Your task to perform on an android device: star an email in the gmail app Image 0: 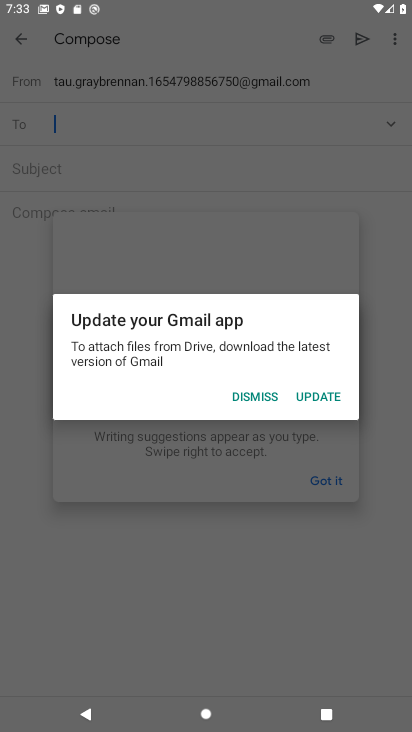
Step 0: press home button
Your task to perform on an android device: star an email in the gmail app Image 1: 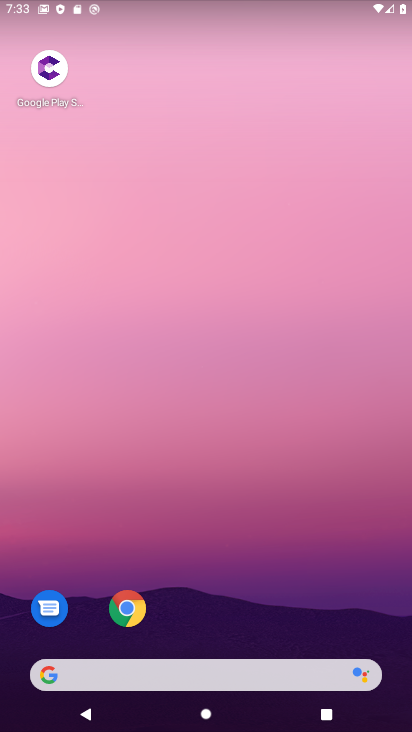
Step 1: drag from (305, 600) to (206, 2)
Your task to perform on an android device: star an email in the gmail app Image 2: 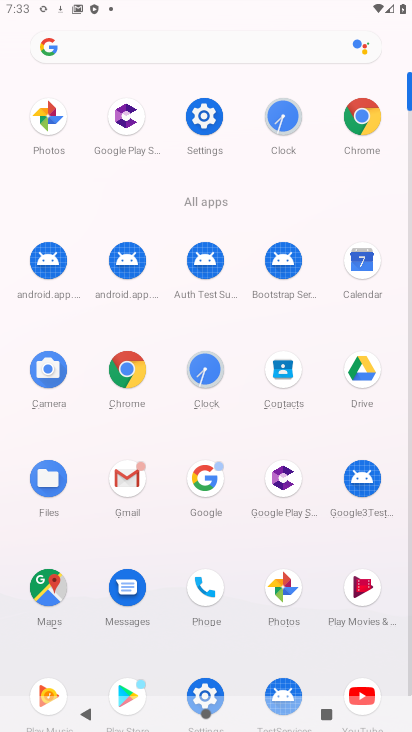
Step 2: click (133, 474)
Your task to perform on an android device: star an email in the gmail app Image 3: 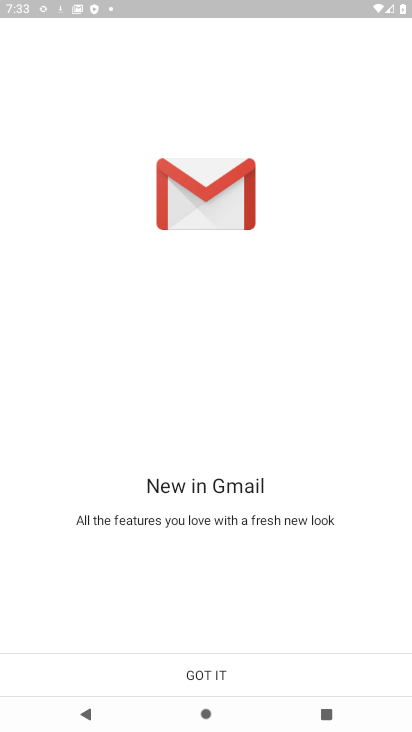
Step 3: click (249, 676)
Your task to perform on an android device: star an email in the gmail app Image 4: 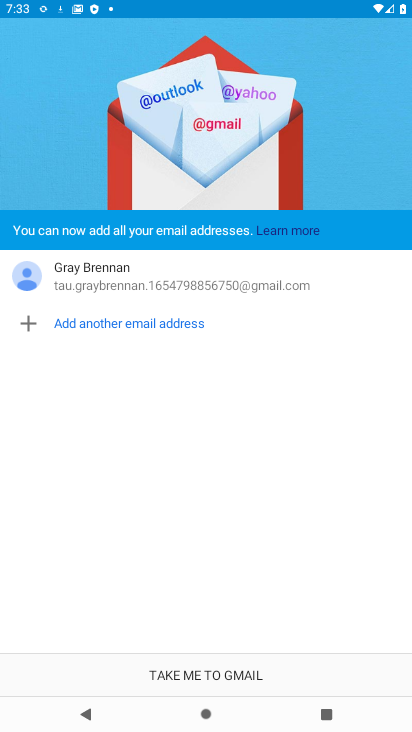
Step 4: click (232, 668)
Your task to perform on an android device: star an email in the gmail app Image 5: 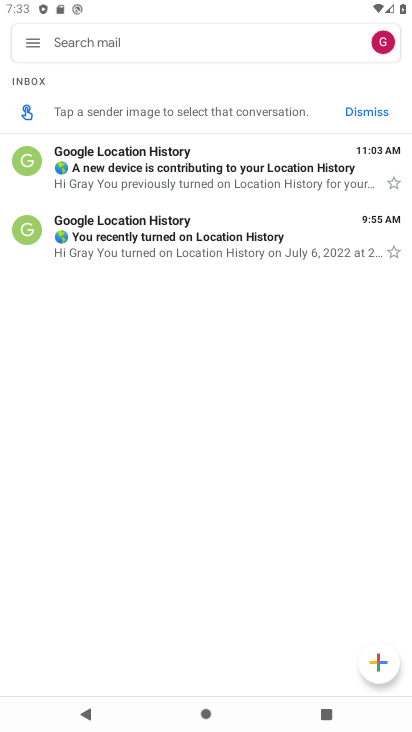
Step 5: click (119, 151)
Your task to perform on an android device: star an email in the gmail app Image 6: 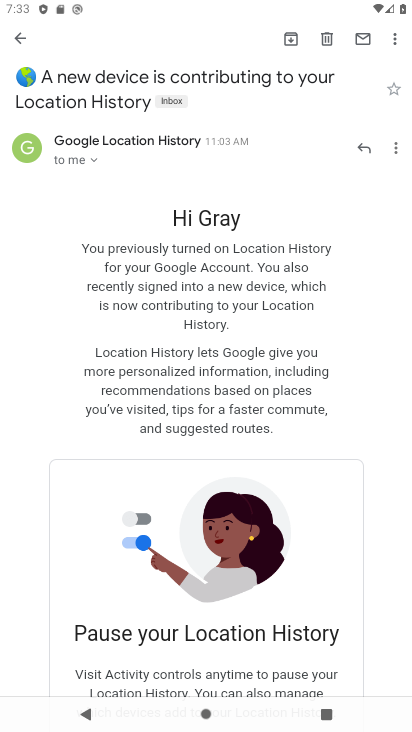
Step 6: task complete